Your task to perform on an android device: turn smart compose on in the gmail app Image 0: 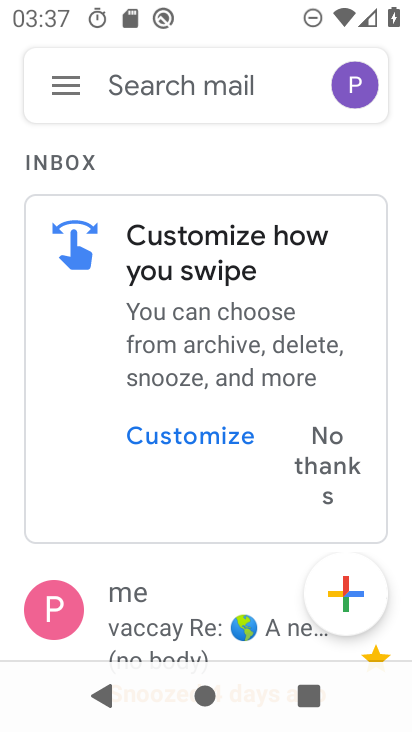
Step 0: click (68, 74)
Your task to perform on an android device: turn smart compose on in the gmail app Image 1: 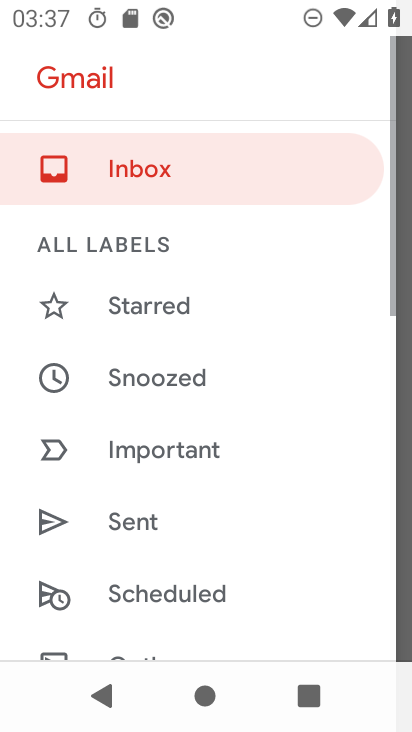
Step 1: drag from (152, 546) to (257, 39)
Your task to perform on an android device: turn smart compose on in the gmail app Image 2: 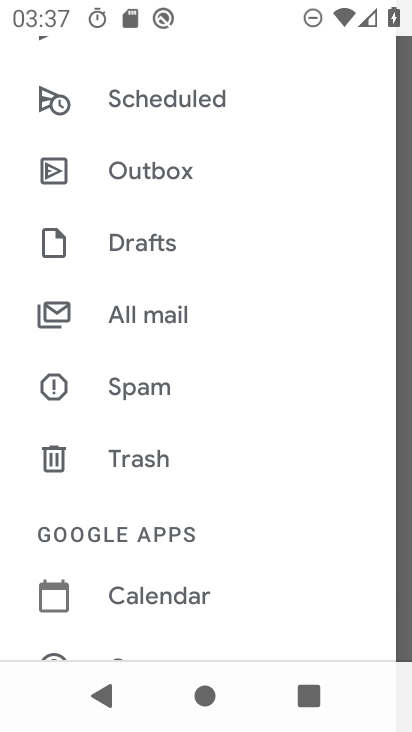
Step 2: drag from (164, 588) to (251, 67)
Your task to perform on an android device: turn smart compose on in the gmail app Image 3: 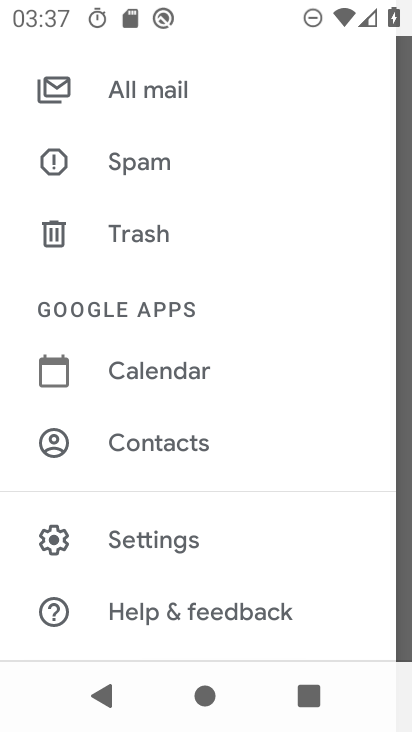
Step 3: click (123, 531)
Your task to perform on an android device: turn smart compose on in the gmail app Image 4: 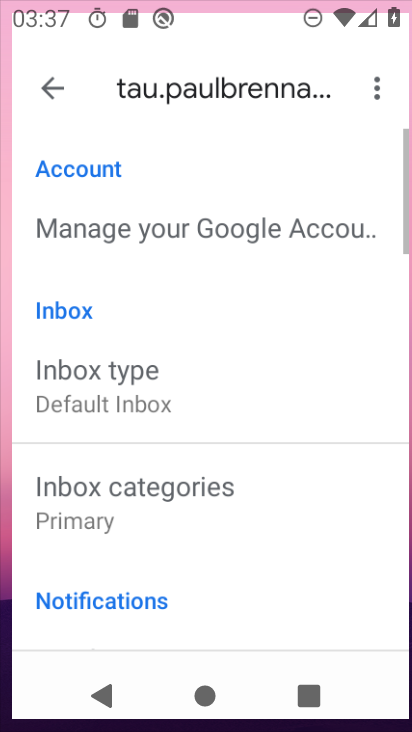
Step 4: task complete